Your task to perform on an android device: see tabs open on other devices in the chrome app Image 0: 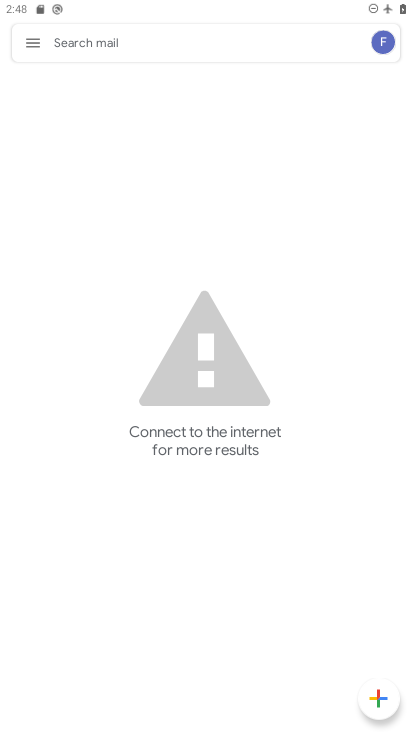
Step 0: press home button
Your task to perform on an android device: see tabs open on other devices in the chrome app Image 1: 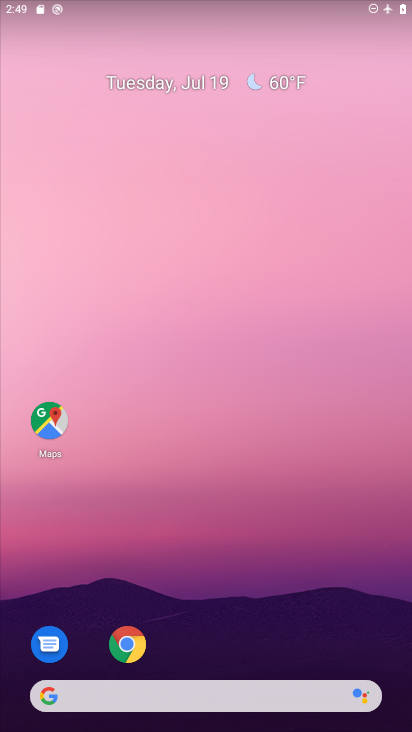
Step 1: drag from (227, 674) to (207, 177)
Your task to perform on an android device: see tabs open on other devices in the chrome app Image 2: 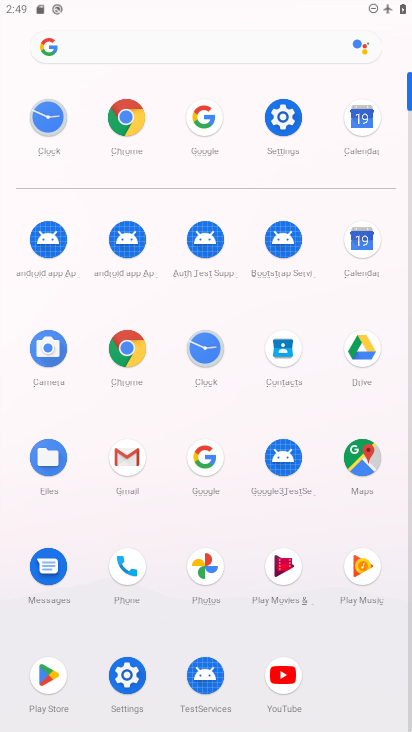
Step 2: click (128, 357)
Your task to perform on an android device: see tabs open on other devices in the chrome app Image 3: 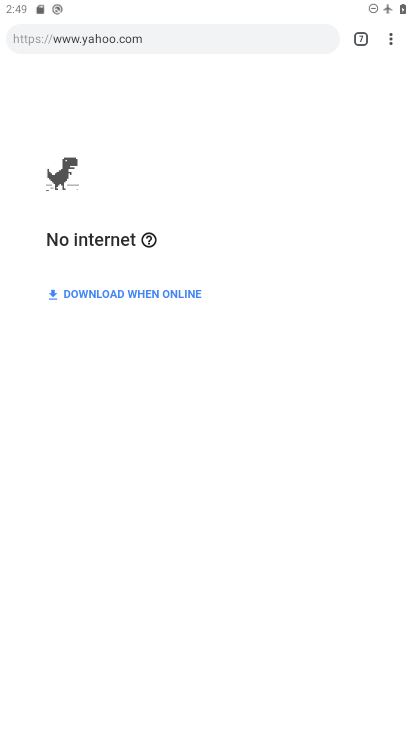
Step 3: click (362, 45)
Your task to perform on an android device: see tabs open on other devices in the chrome app Image 4: 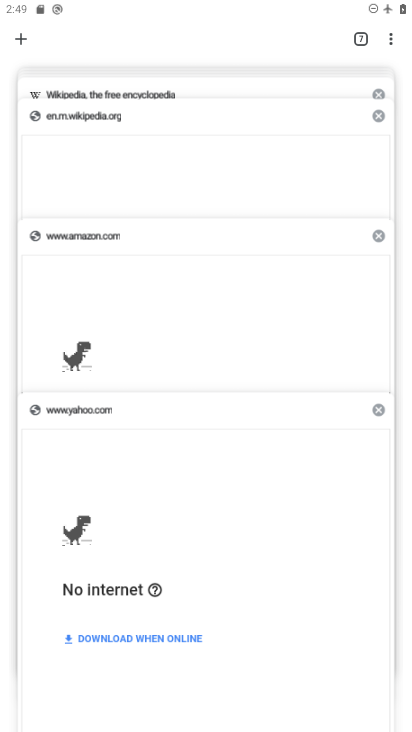
Step 4: click (25, 40)
Your task to perform on an android device: see tabs open on other devices in the chrome app Image 5: 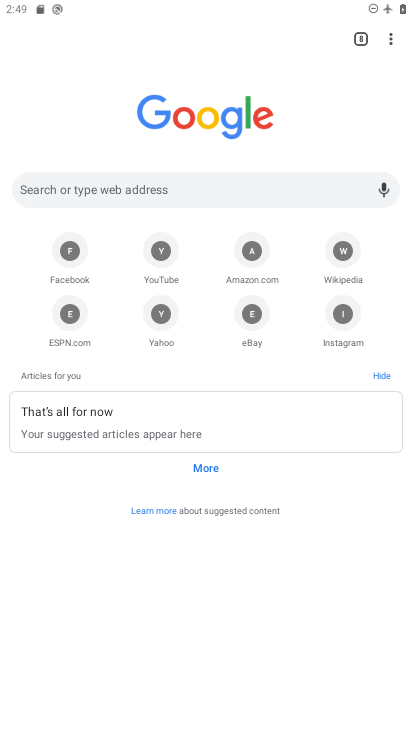
Step 5: task complete